Your task to perform on an android device: Open display settings Image 0: 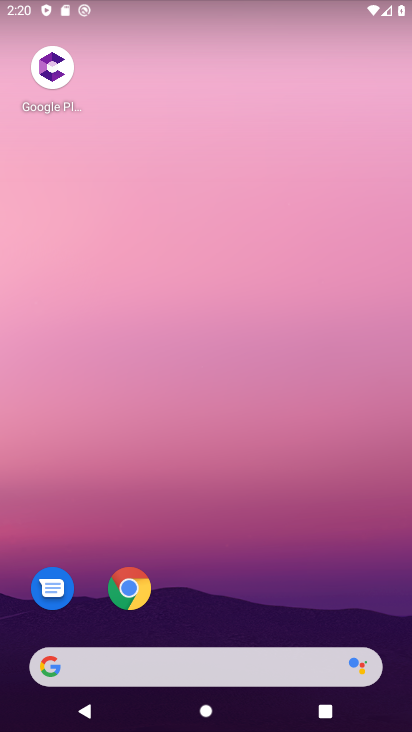
Step 0: drag from (281, 558) to (258, 11)
Your task to perform on an android device: Open display settings Image 1: 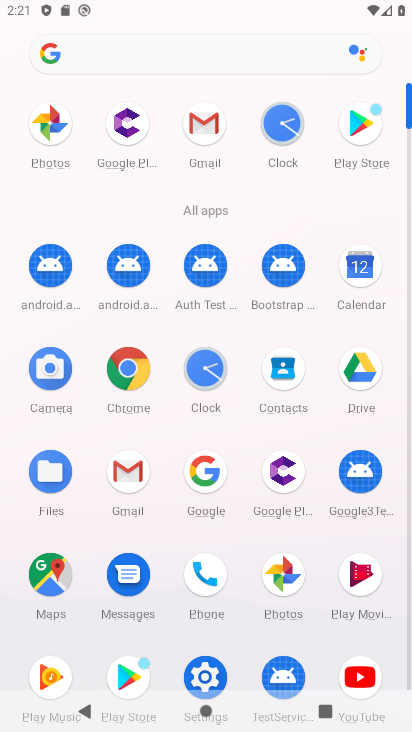
Step 1: click (192, 687)
Your task to perform on an android device: Open display settings Image 2: 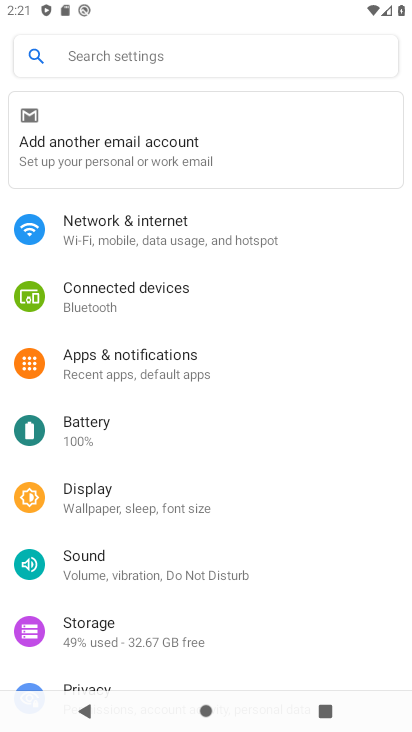
Step 2: click (114, 494)
Your task to perform on an android device: Open display settings Image 3: 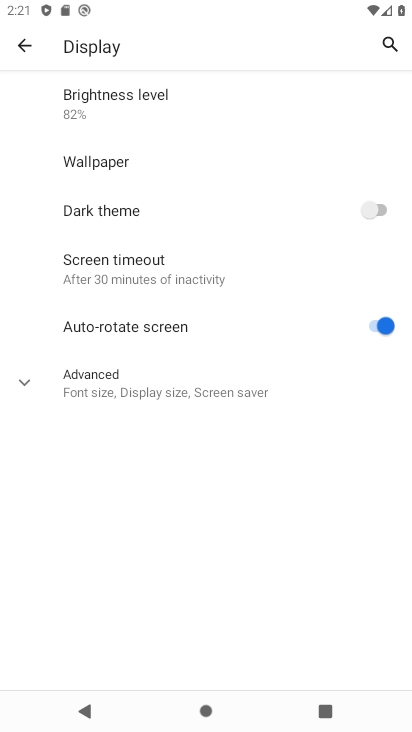
Step 3: task complete